Your task to perform on an android device: Find coffee shops on Maps Image 0: 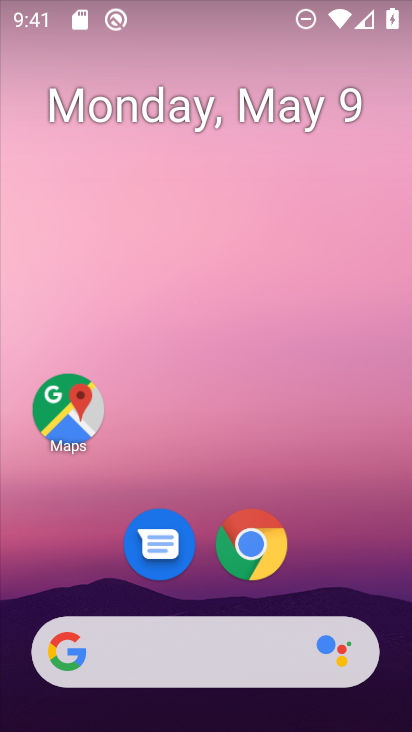
Step 0: click (67, 411)
Your task to perform on an android device: Find coffee shops on Maps Image 1: 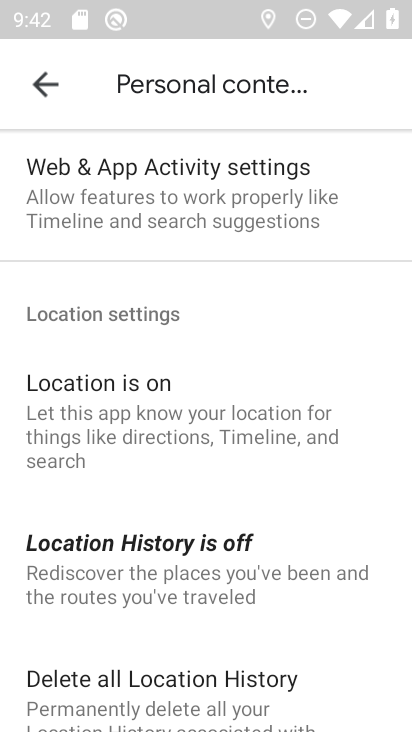
Step 1: click (51, 72)
Your task to perform on an android device: Find coffee shops on Maps Image 2: 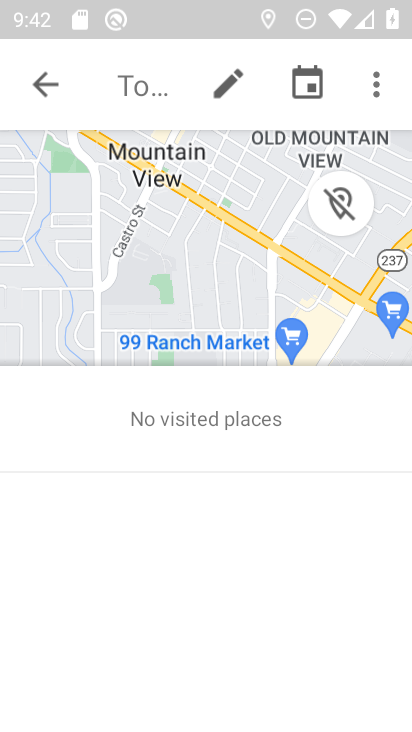
Step 2: click (38, 83)
Your task to perform on an android device: Find coffee shops on Maps Image 3: 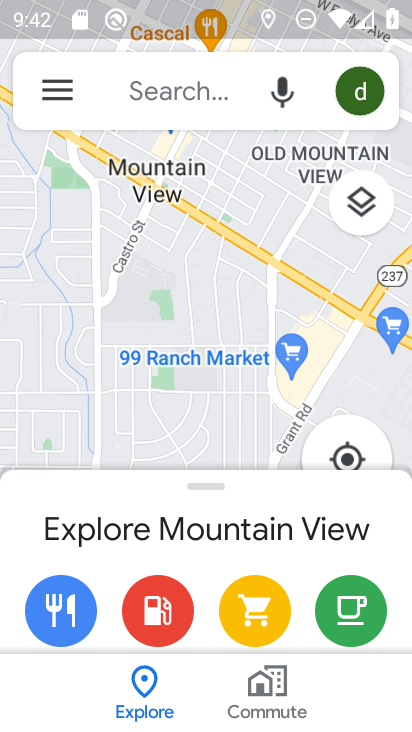
Step 3: click (181, 85)
Your task to perform on an android device: Find coffee shops on Maps Image 4: 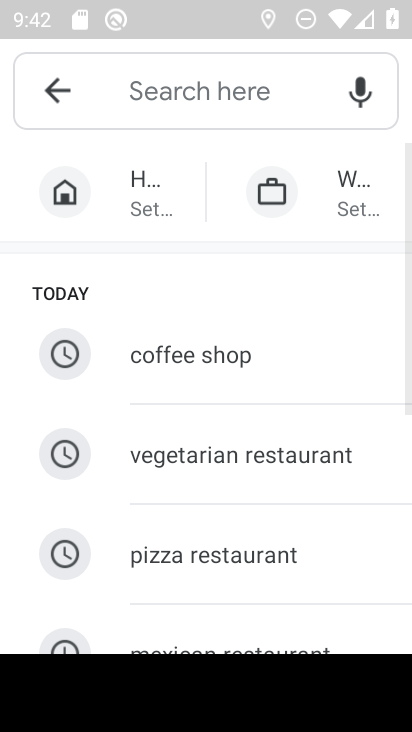
Step 4: click (187, 349)
Your task to perform on an android device: Find coffee shops on Maps Image 5: 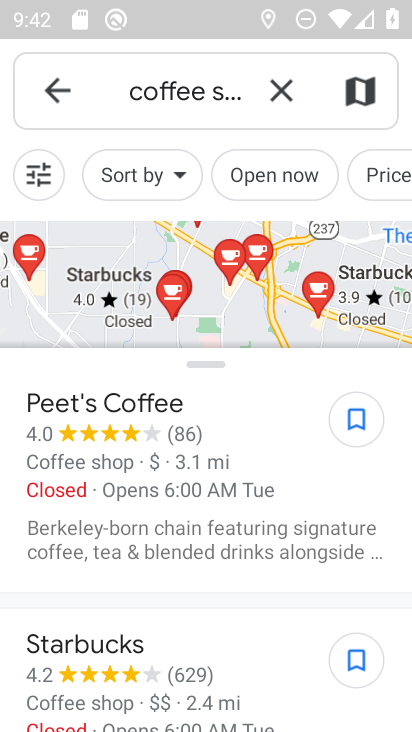
Step 5: task complete